Your task to perform on an android device: see sites visited before in the chrome app Image 0: 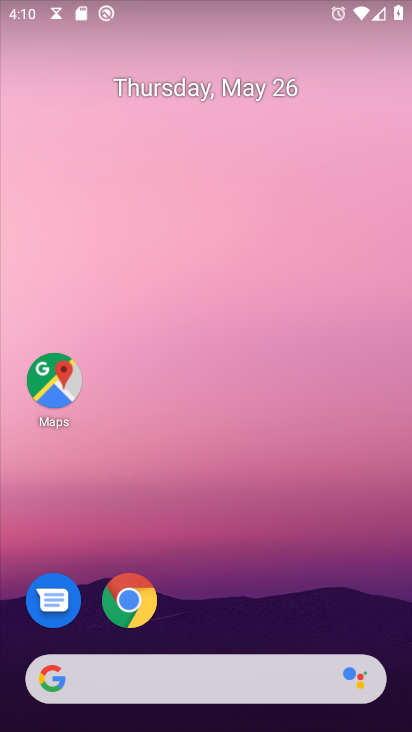
Step 0: click (138, 602)
Your task to perform on an android device: see sites visited before in the chrome app Image 1: 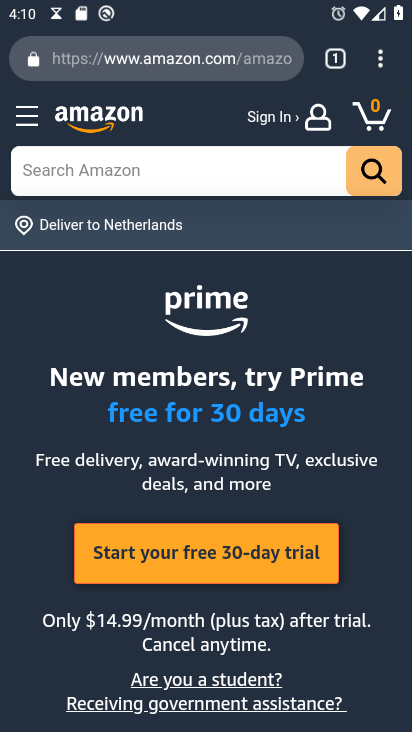
Step 1: click (387, 60)
Your task to perform on an android device: see sites visited before in the chrome app Image 2: 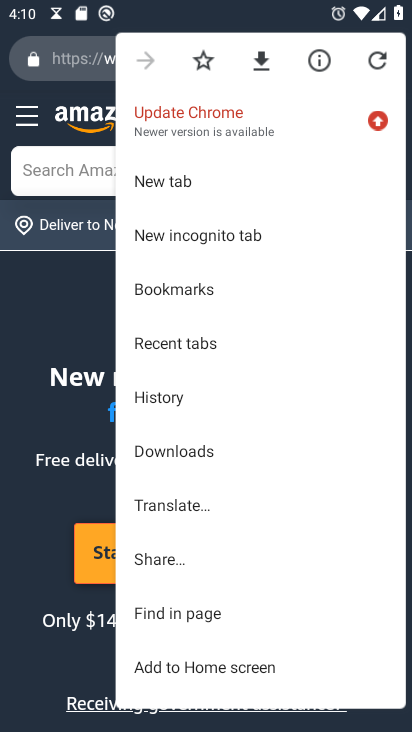
Step 2: click (186, 402)
Your task to perform on an android device: see sites visited before in the chrome app Image 3: 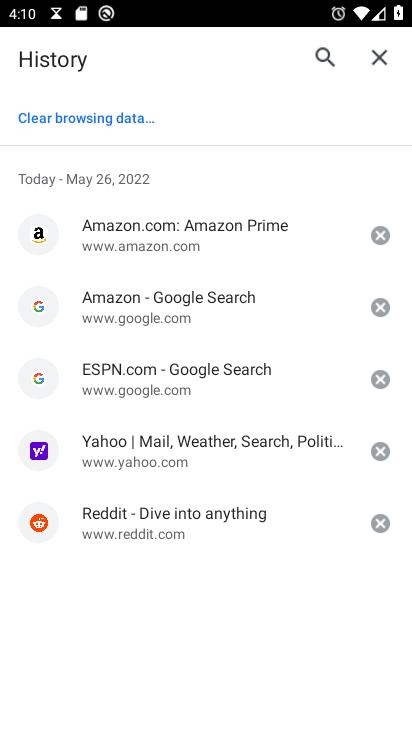
Step 3: task complete